Your task to perform on an android device: snooze an email in the gmail app Image 0: 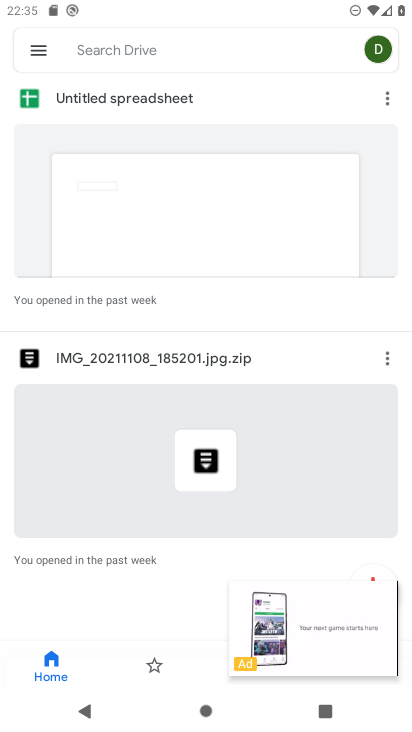
Step 0: press home button
Your task to perform on an android device: snooze an email in the gmail app Image 1: 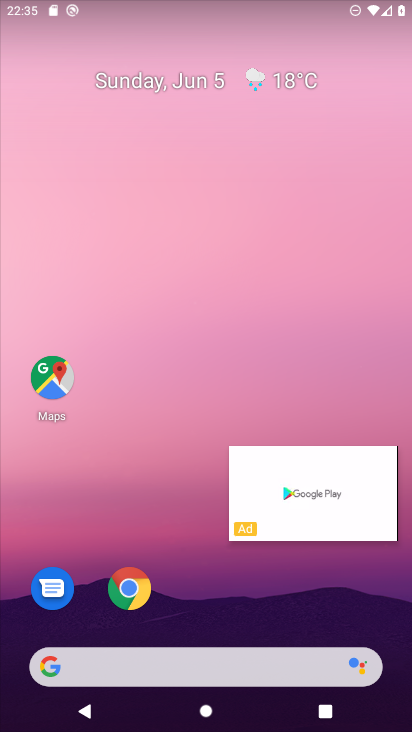
Step 1: drag from (246, 597) to (228, 169)
Your task to perform on an android device: snooze an email in the gmail app Image 2: 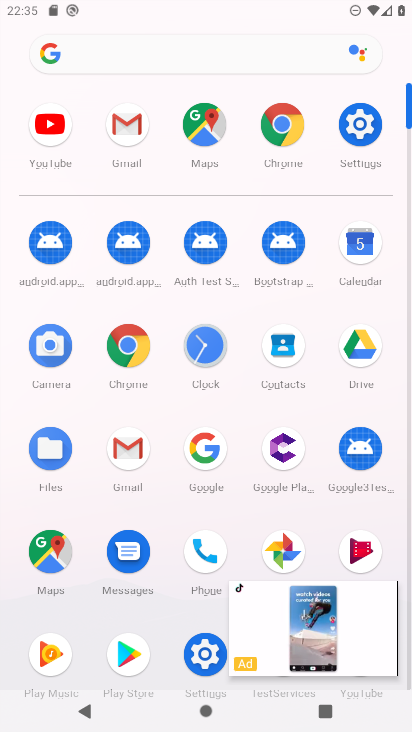
Step 2: click (132, 135)
Your task to perform on an android device: snooze an email in the gmail app Image 3: 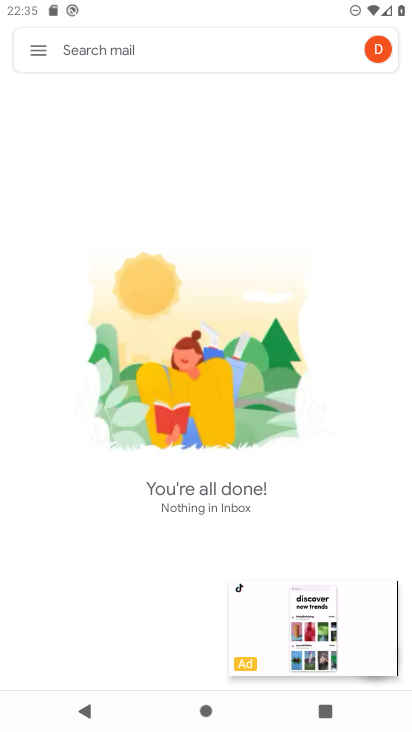
Step 3: click (46, 56)
Your task to perform on an android device: snooze an email in the gmail app Image 4: 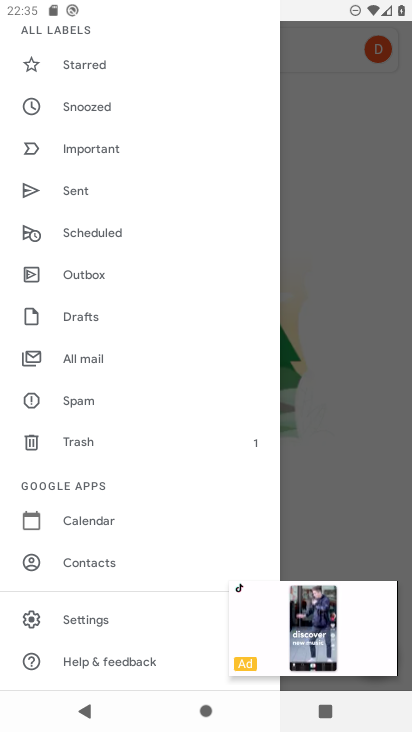
Step 4: drag from (169, 451) to (163, 333)
Your task to perform on an android device: snooze an email in the gmail app Image 5: 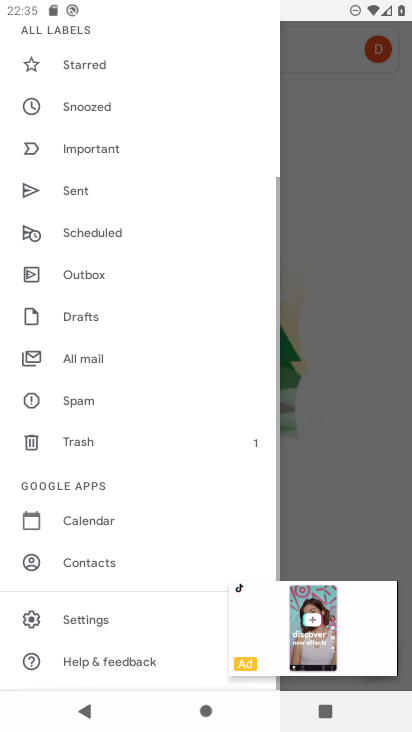
Step 5: drag from (166, 279) to (162, 337)
Your task to perform on an android device: snooze an email in the gmail app Image 6: 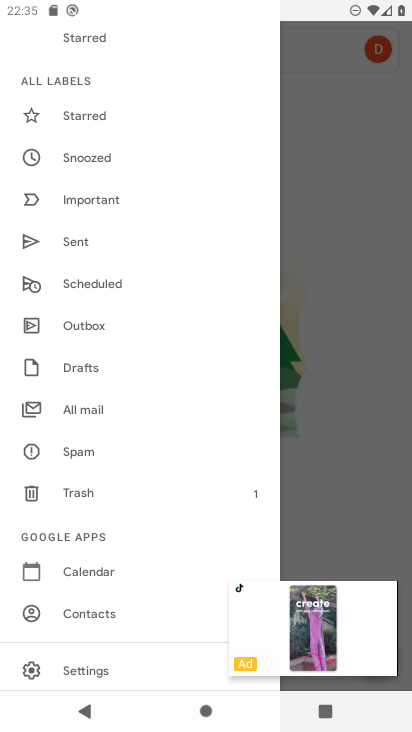
Step 6: drag from (171, 242) to (165, 353)
Your task to perform on an android device: snooze an email in the gmail app Image 7: 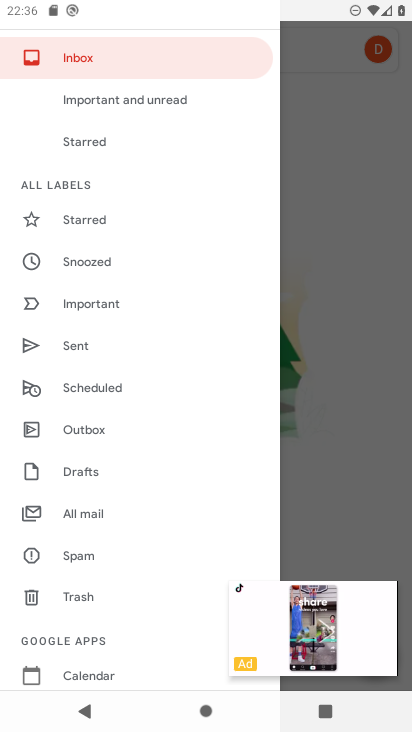
Step 7: drag from (174, 240) to (174, 342)
Your task to perform on an android device: snooze an email in the gmail app Image 8: 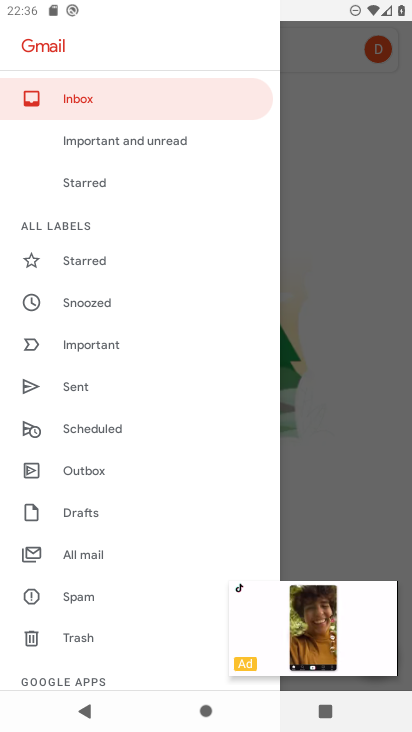
Step 8: drag from (177, 219) to (189, 331)
Your task to perform on an android device: snooze an email in the gmail app Image 9: 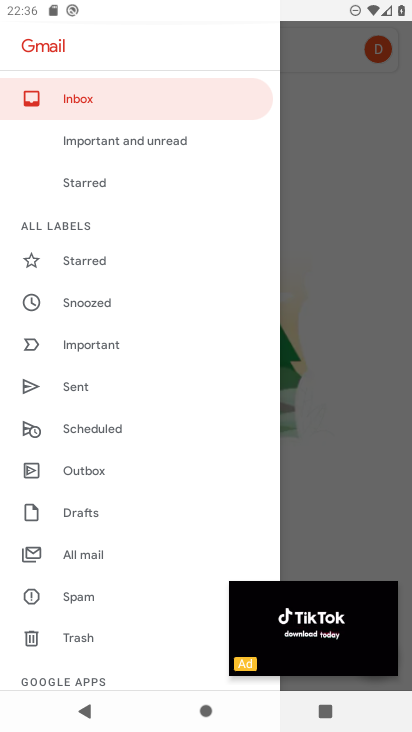
Step 9: click (118, 306)
Your task to perform on an android device: snooze an email in the gmail app Image 10: 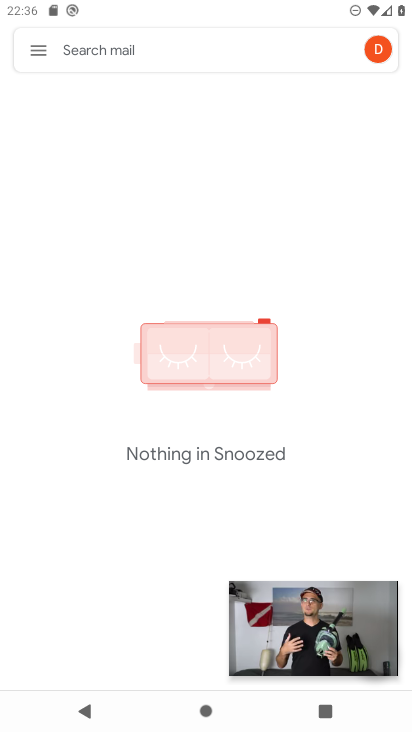
Step 10: task complete